Your task to perform on an android device: Open Chrome and go to the settings page Image 0: 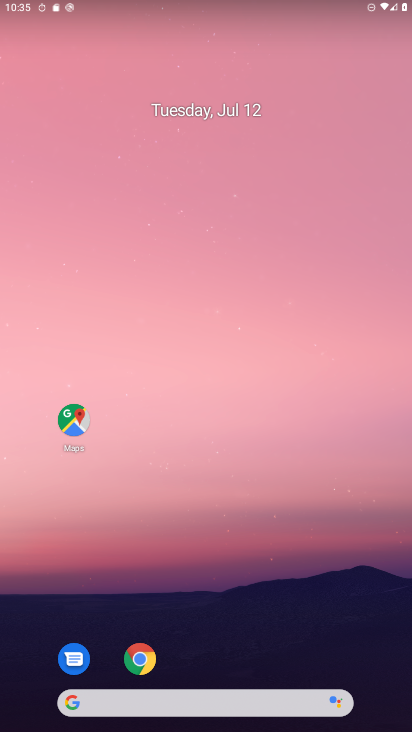
Step 0: click (139, 659)
Your task to perform on an android device: Open Chrome and go to the settings page Image 1: 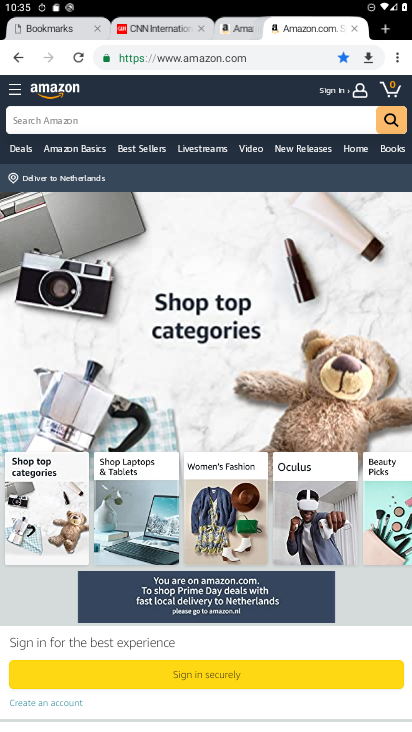
Step 1: click (393, 67)
Your task to perform on an android device: Open Chrome and go to the settings page Image 2: 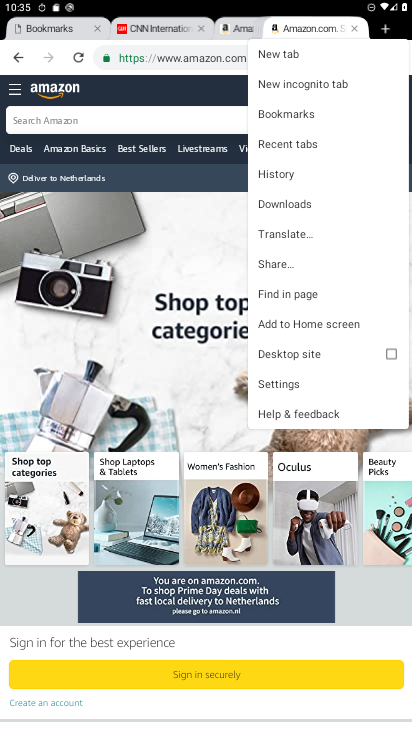
Step 2: click (284, 384)
Your task to perform on an android device: Open Chrome and go to the settings page Image 3: 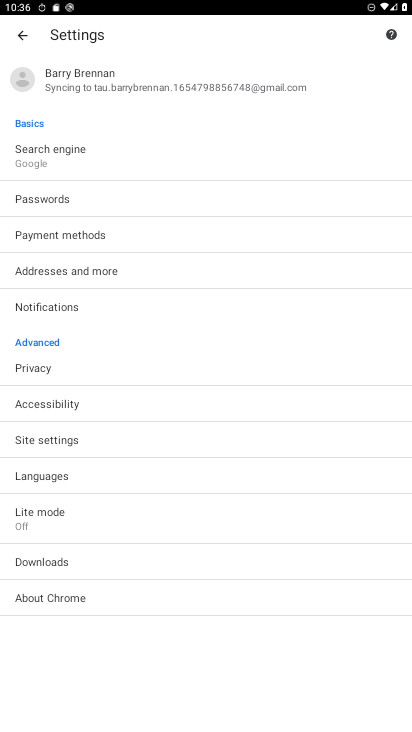
Step 3: task complete